Your task to perform on an android device: Check the weather Image 0: 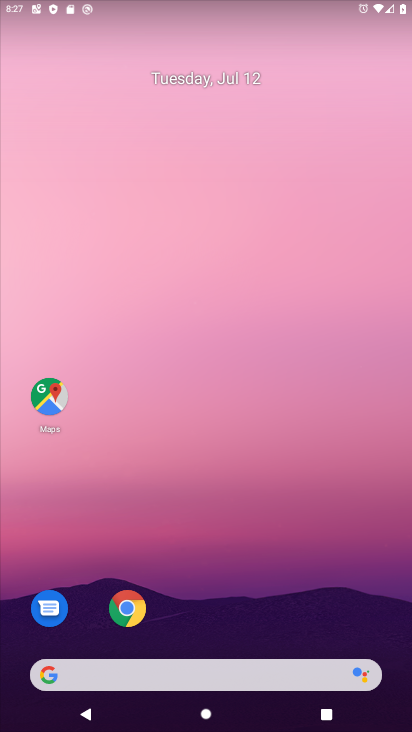
Step 0: click (161, 676)
Your task to perform on an android device: Check the weather Image 1: 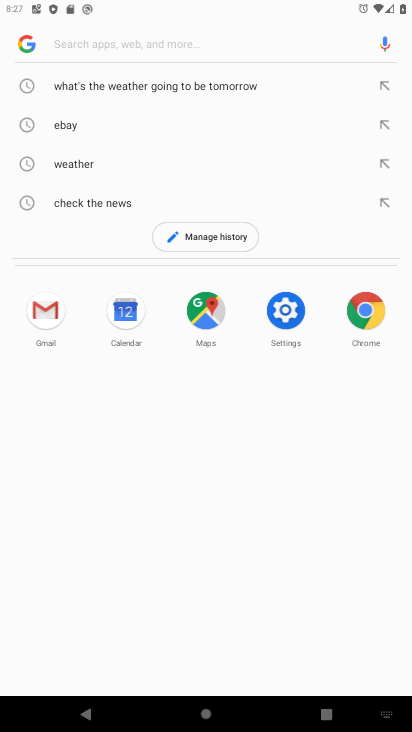
Step 1: type "weather"
Your task to perform on an android device: Check the weather Image 2: 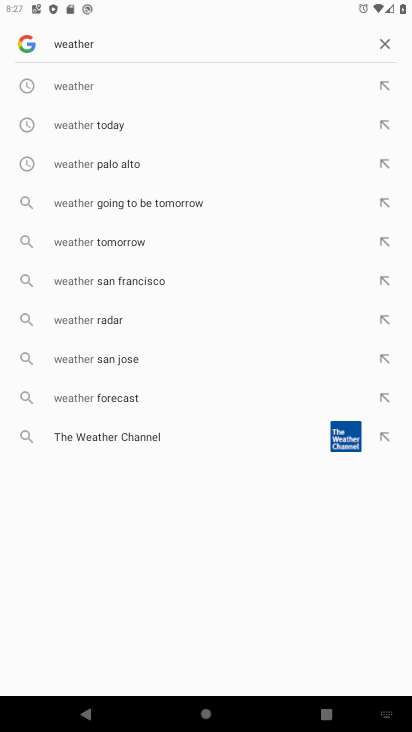
Step 2: click (147, 80)
Your task to perform on an android device: Check the weather Image 3: 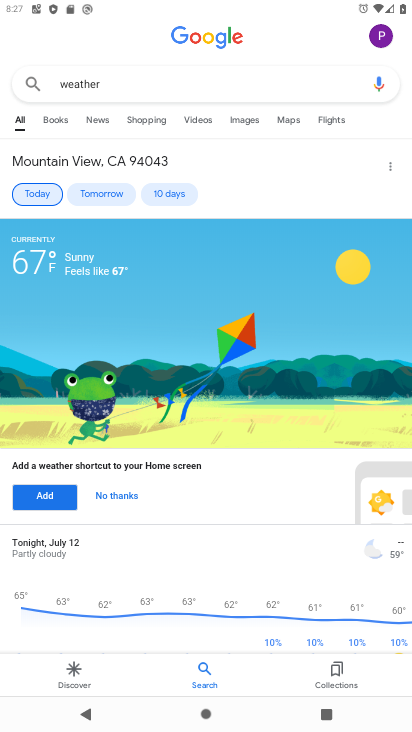
Step 3: task complete